Your task to perform on an android device: check google app version Image 0: 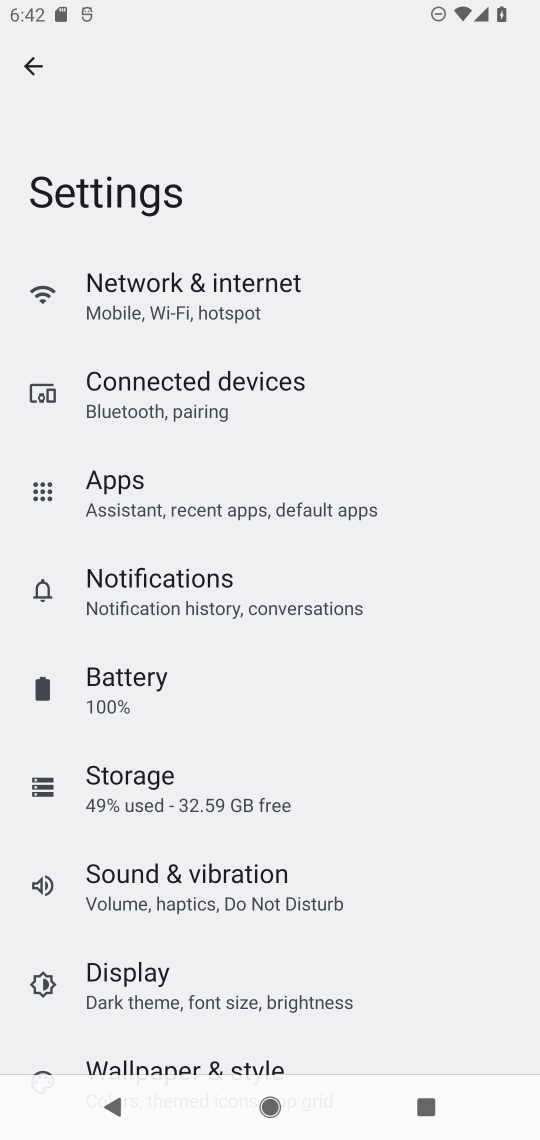
Step 0: press home button
Your task to perform on an android device: check google app version Image 1: 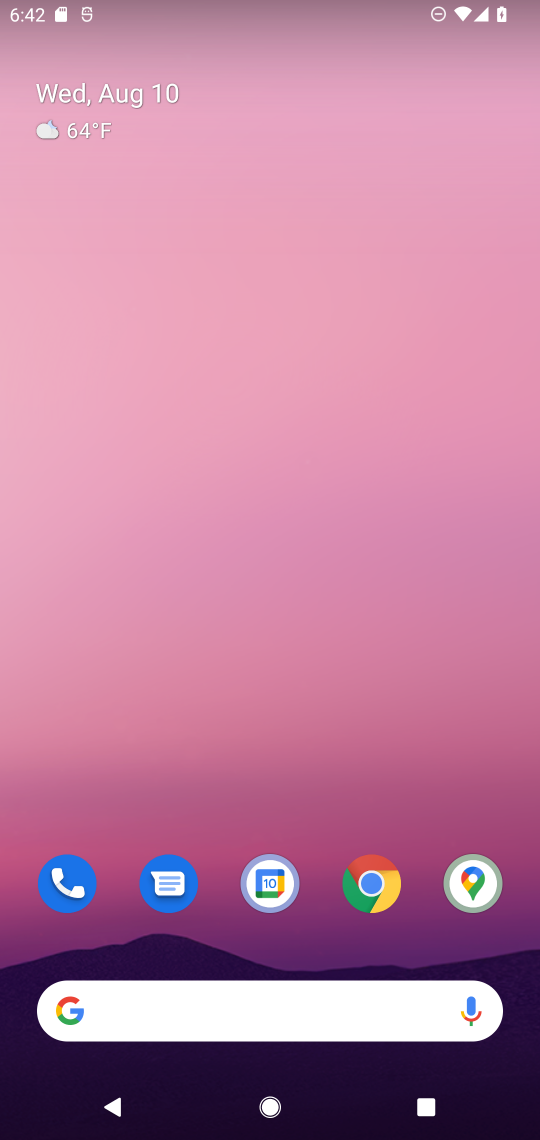
Step 1: drag from (323, 921) to (486, 69)
Your task to perform on an android device: check google app version Image 2: 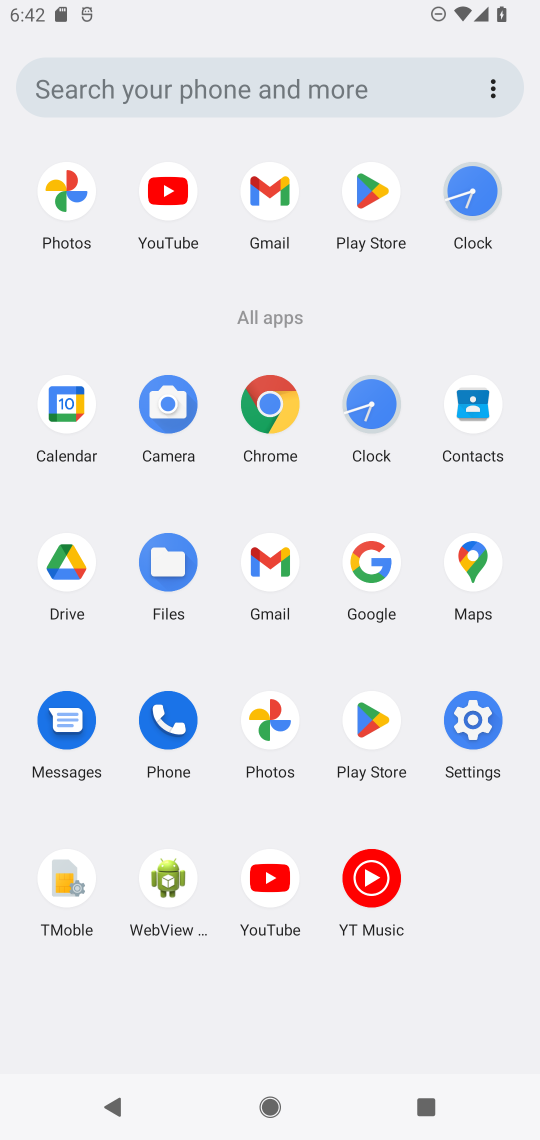
Step 2: click (365, 550)
Your task to perform on an android device: check google app version Image 3: 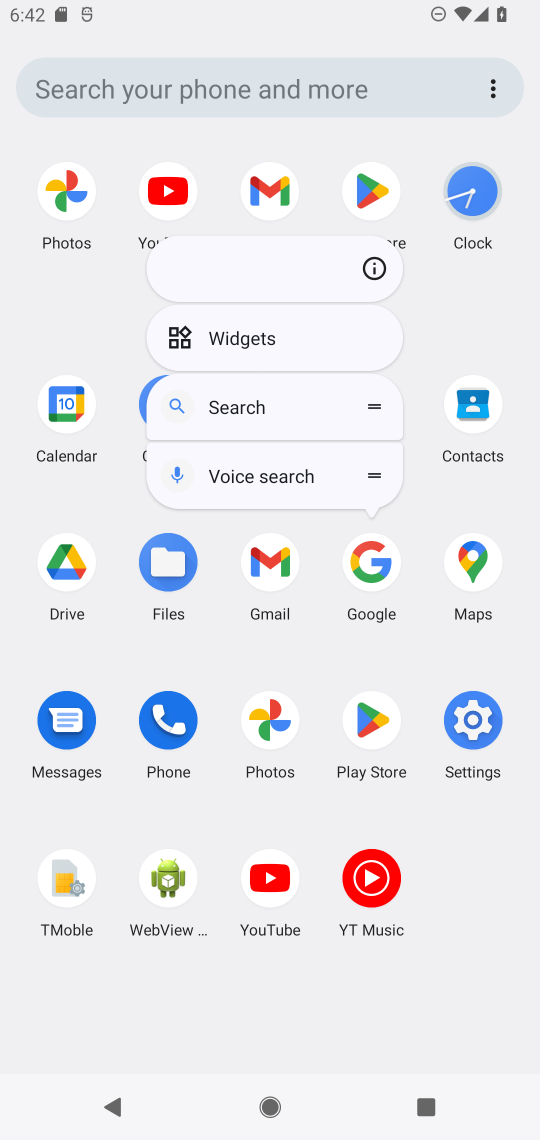
Step 3: click (373, 257)
Your task to perform on an android device: check google app version Image 4: 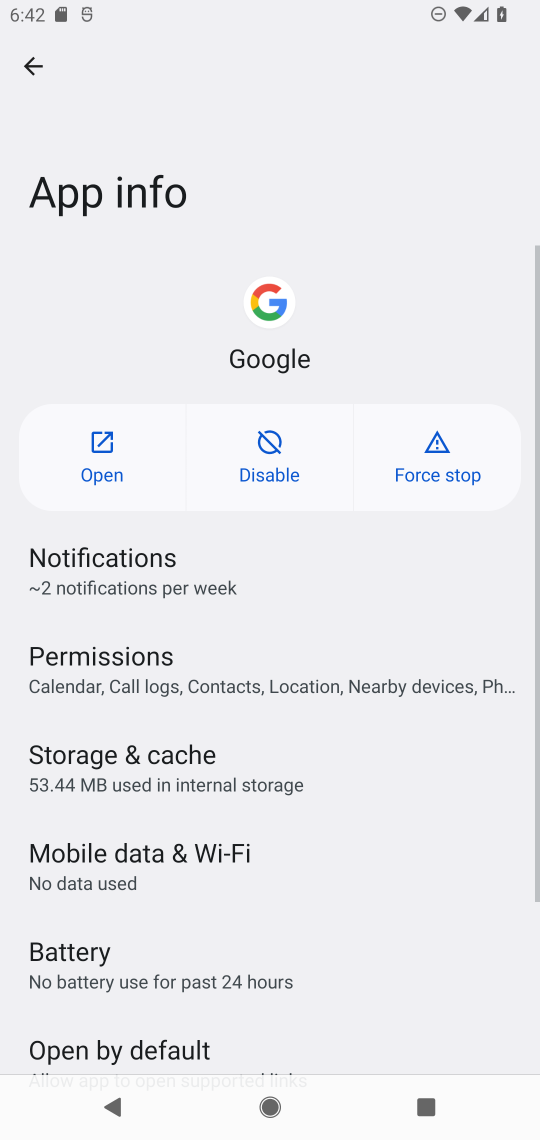
Step 4: task complete